Your task to perform on an android device: check google app version Image 0: 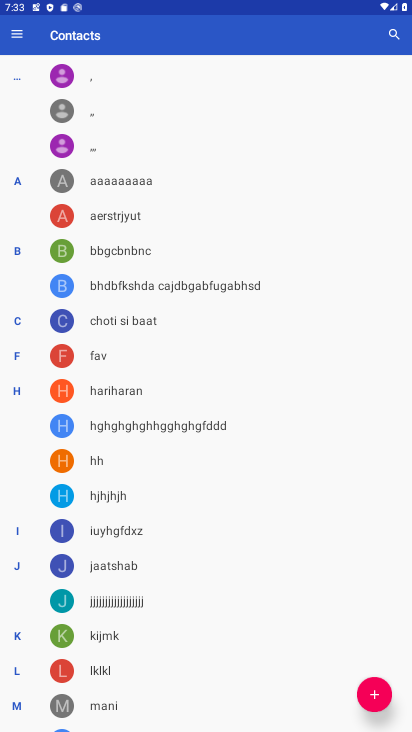
Step 0: press home button
Your task to perform on an android device: check google app version Image 1: 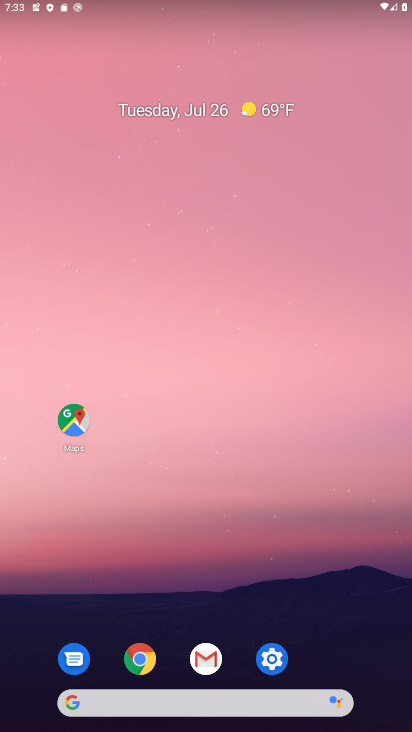
Step 1: drag from (227, 705) to (244, 88)
Your task to perform on an android device: check google app version Image 2: 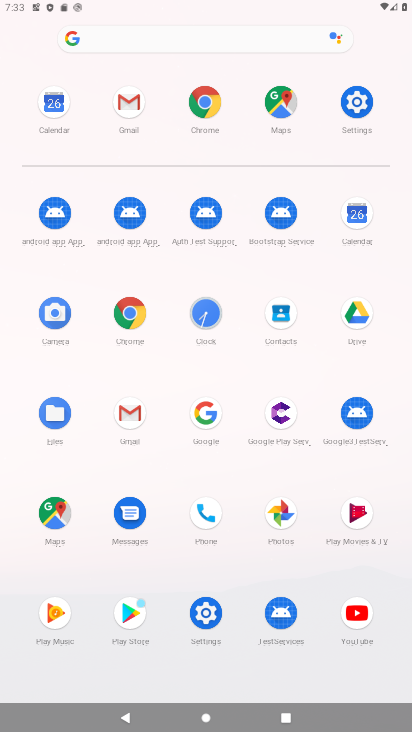
Step 2: click (126, 310)
Your task to perform on an android device: check google app version Image 3: 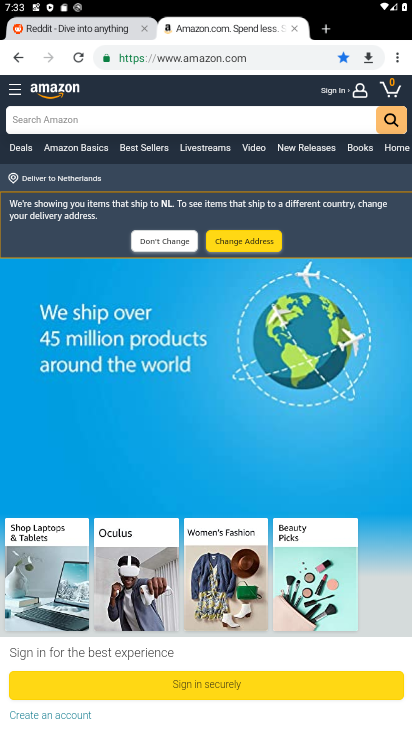
Step 3: click (397, 61)
Your task to perform on an android device: check google app version Image 4: 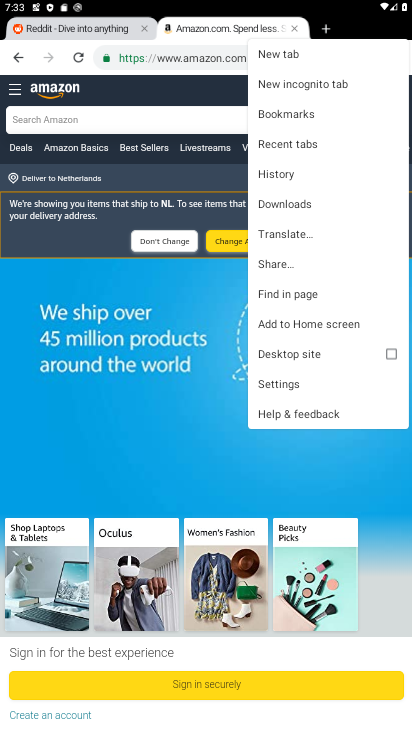
Step 4: click (277, 381)
Your task to perform on an android device: check google app version Image 5: 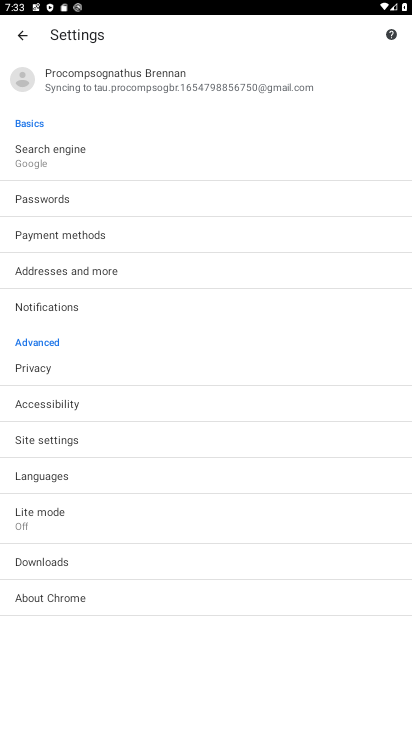
Step 5: click (33, 601)
Your task to perform on an android device: check google app version Image 6: 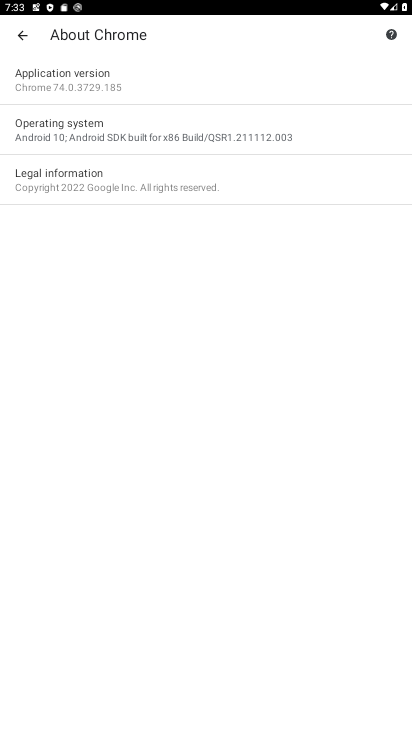
Step 6: click (58, 70)
Your task to perform on an android device: check google app version Image 7: 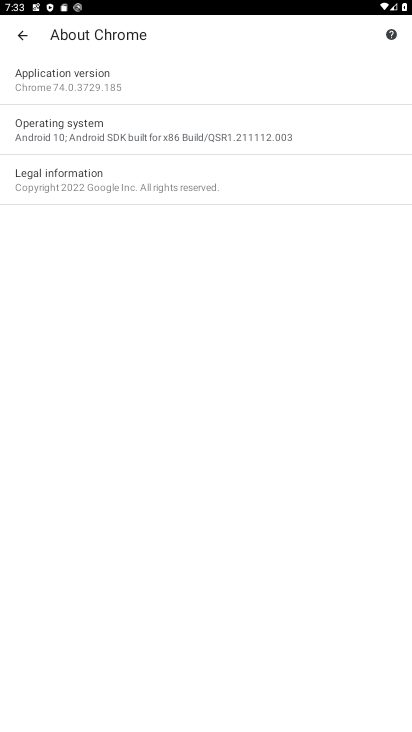
Step 7: task complete